Your task to perform on an android device: check android version Image 0: 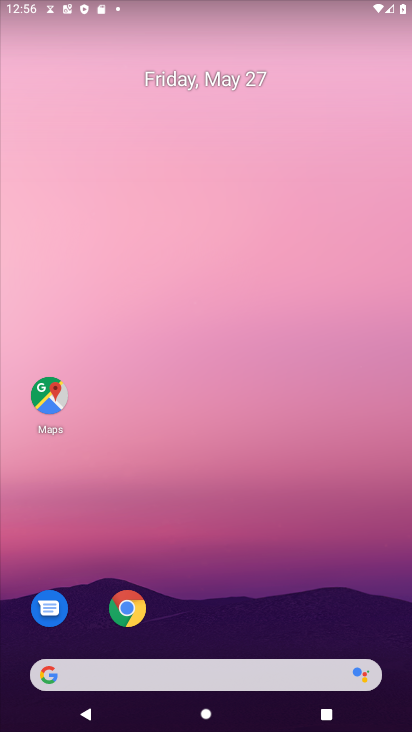
Step 0: drag from (194, 635) to (277, 16)
Your task to perform on an android device: check android version Image 1: 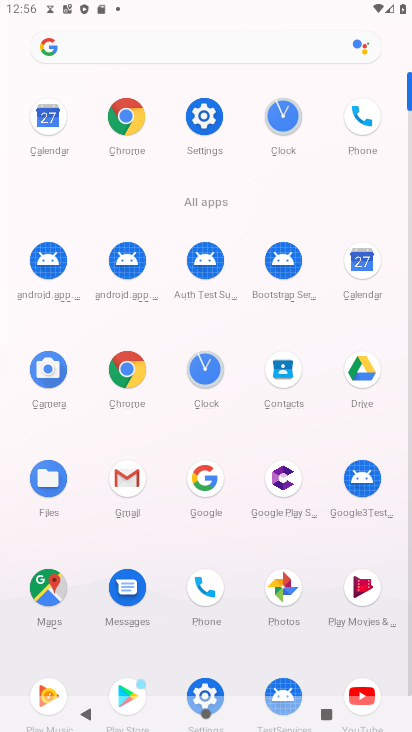
Step 1: click (193, 118)
Your task to perform on an android device: check android version Image 2: 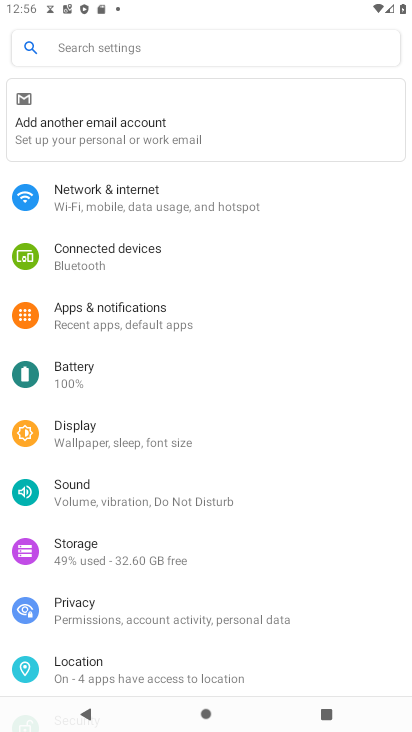
Step 2: drag from (140, 606) to (261, 46)
Your task to perform on an android device: check android version Image 3: 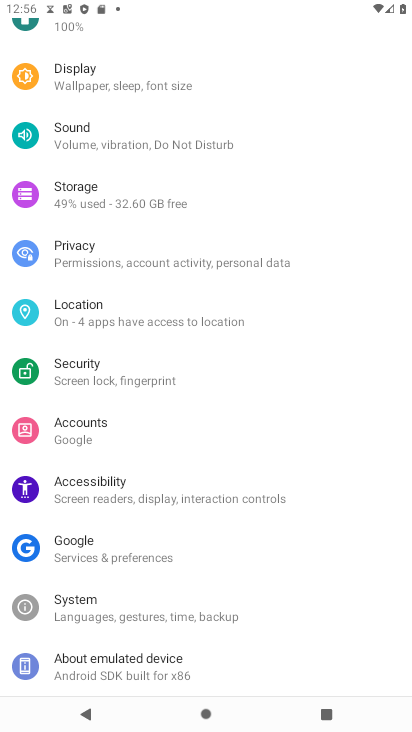
Step 3: drag from (165, 650) to (251, 156)
Your task to perform on an android device: check android version Image 4: 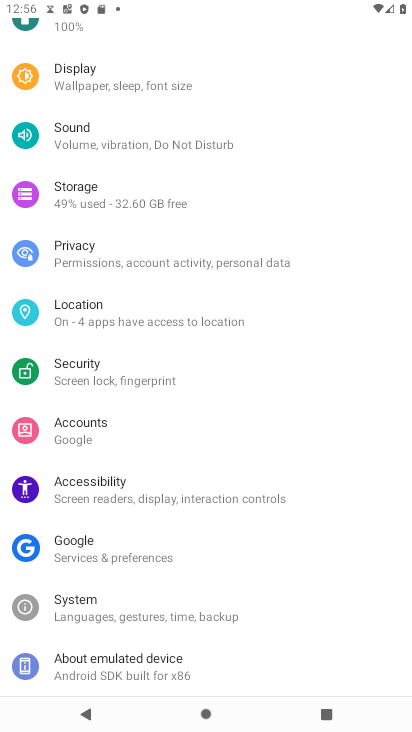
Step 4: click (121, 663)
Your task to perform on an android device: check android version Image 5: 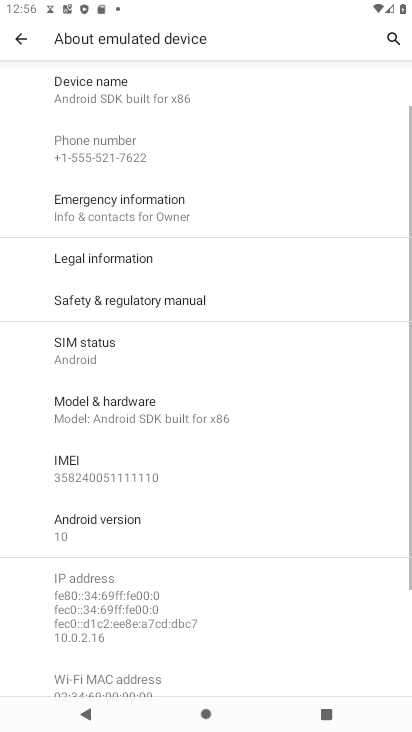
Step 5: click (109, 528)
Your task to perform on an android device: check android version Image 6: 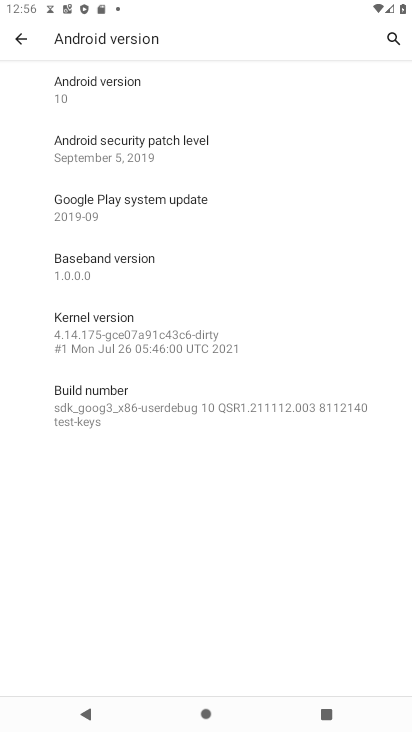
Step 6: task complete